Your task to perform on an android device: What's on my calendar tomorrow? Image 0: 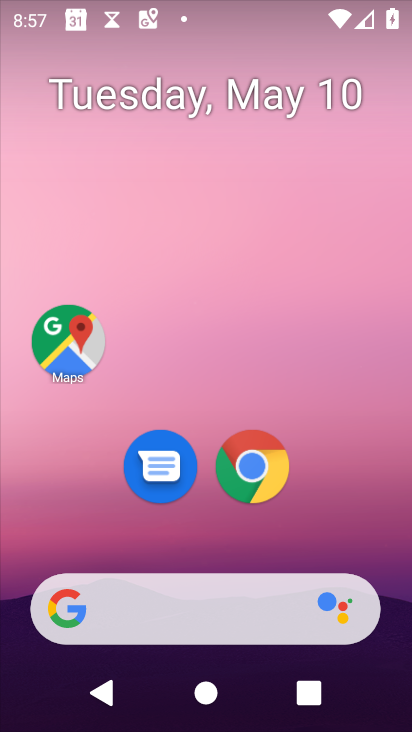
Step 0: drag from (285, 539) to (354, 75)
Your task to perform on an android device: What's on my calendar tomorrow? Image 1: 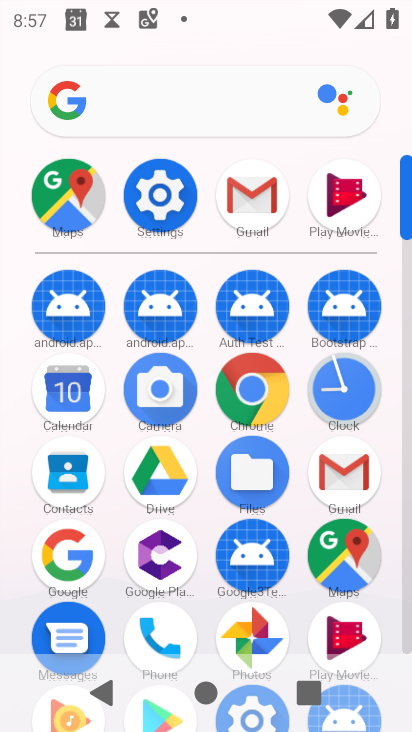
Step 1: click (207, 119)
Your task to perform on an android device: What's on my calendar tomorrow? Image 2: 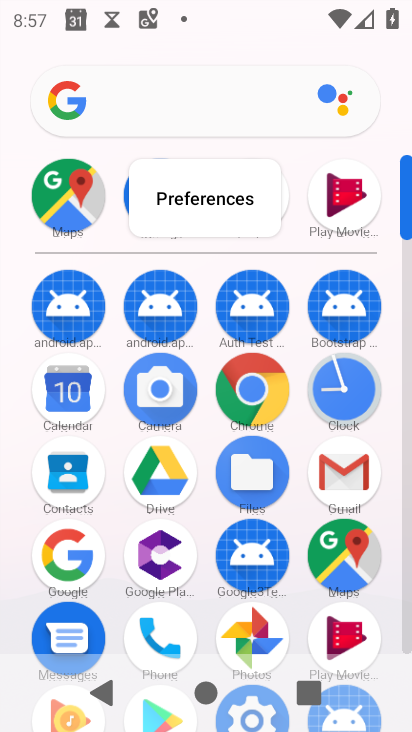
Step 2: click (66, 374)
Your task to perform on an android device: What's on my calendar tomorrow? Image 3: 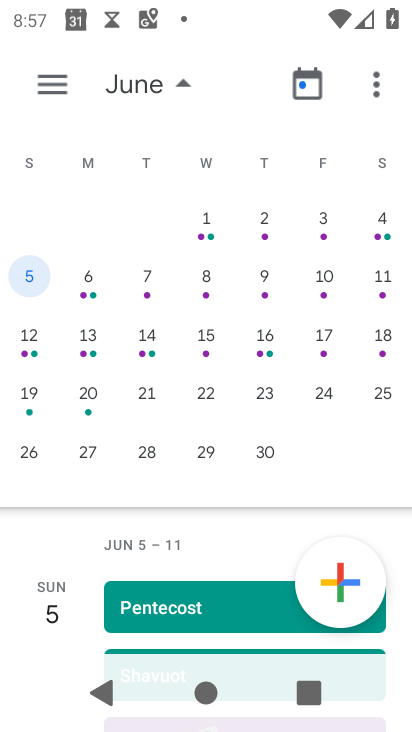
Step 3: drag from (48, 345) to (383, 348)
Your task to perform on an android device: What's on my calendar tomorrow? Image 4: 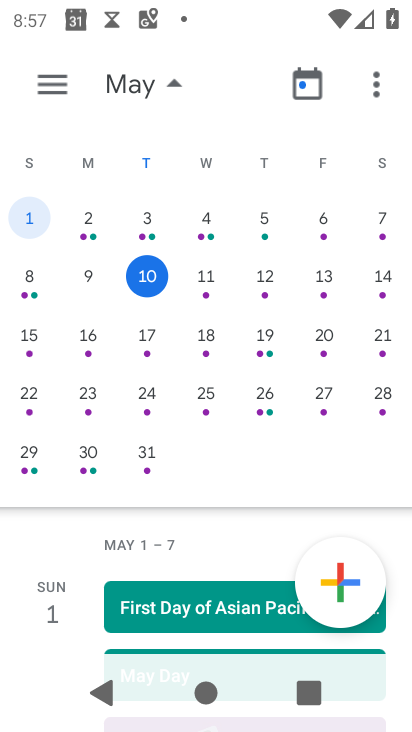
Step 4: click (210, 286)
Your task to perform on an android device: What's on my calendar tomorrow? Image 5: 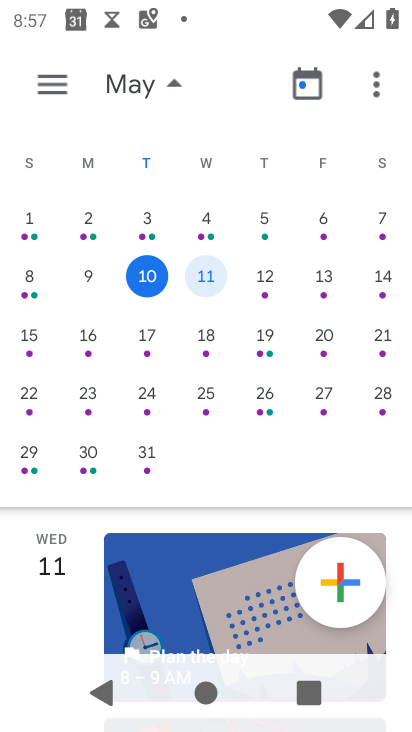
Step 5: task complete